Your task to perform on an android device: turn on airplane mode Image 0: 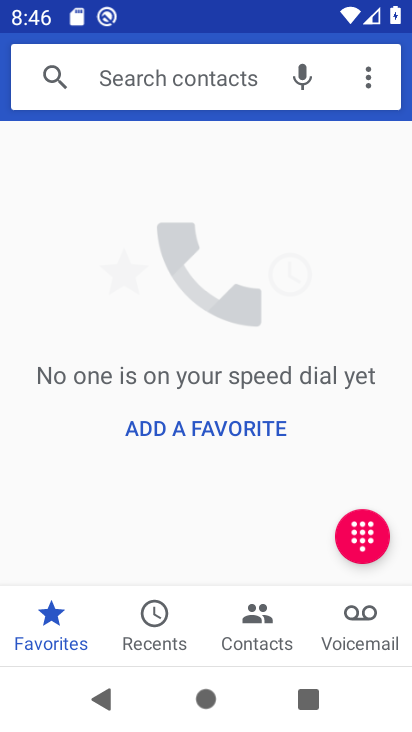
Step 0: press home button
Your task to perform on an android device: turn on airplane mode Image 1: 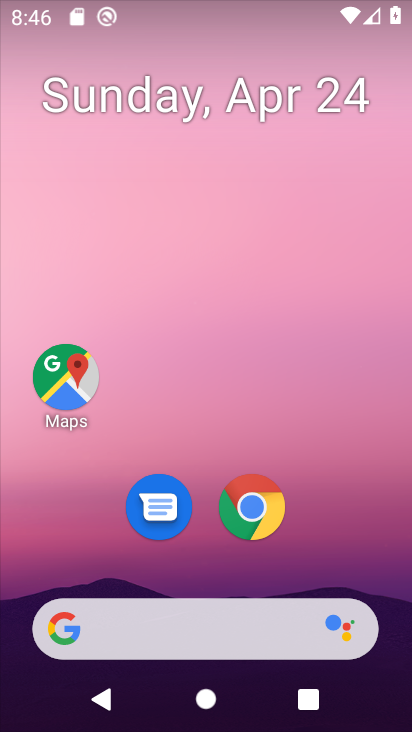
Step 1: drag from (350, 94) to (297, 448)
Your task to perform on an android device: turn on airplane mode Image 2: 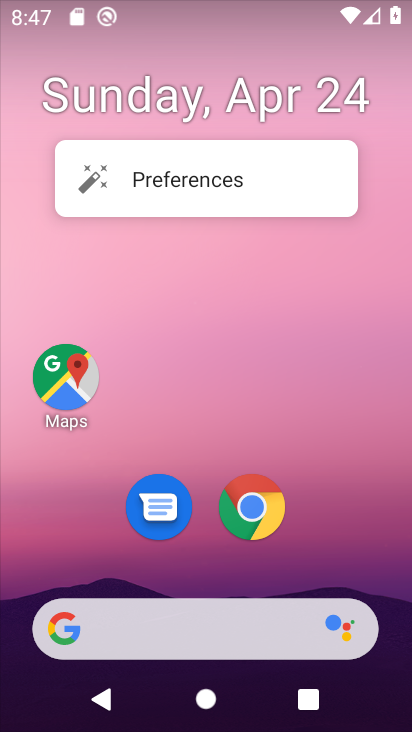
Step 2: drag from (375, 25) to (310, 431)
Your task to perform on an android device: turn on airplane mode Image 3: 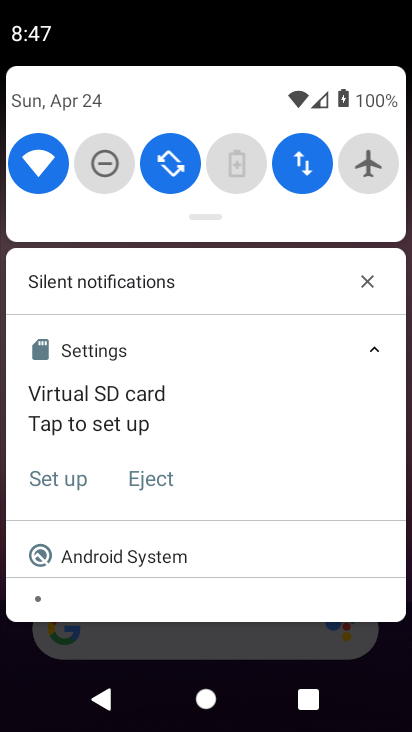
Step 3: click (364, 171)
Your task to perform on an android device: turn on airplane mode Image 4: 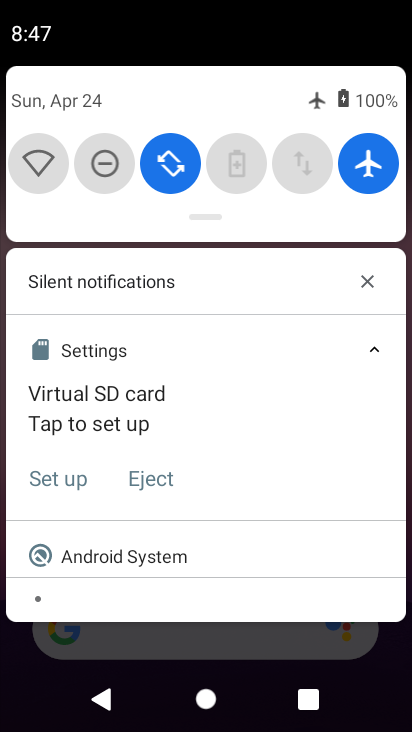
Step 4: task complete